Your task to perform on an android device: set default search engine in the chrome app Image 0: 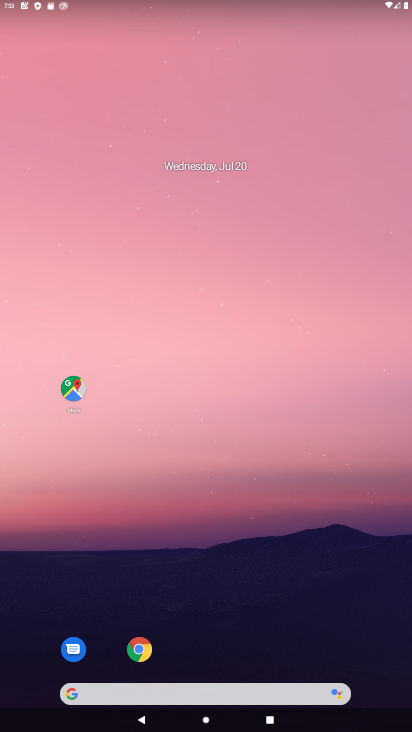
Step 0: click (147, 650)
Your task to perform on an android device: set default search engine in the chrome app Image 1: 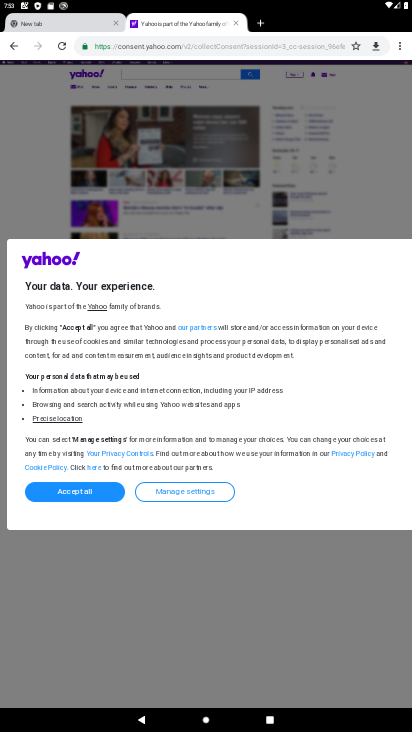
Step 1: click (400, 47)
Your task to perform on an android device: set default search engine in the chrome app Image 2: 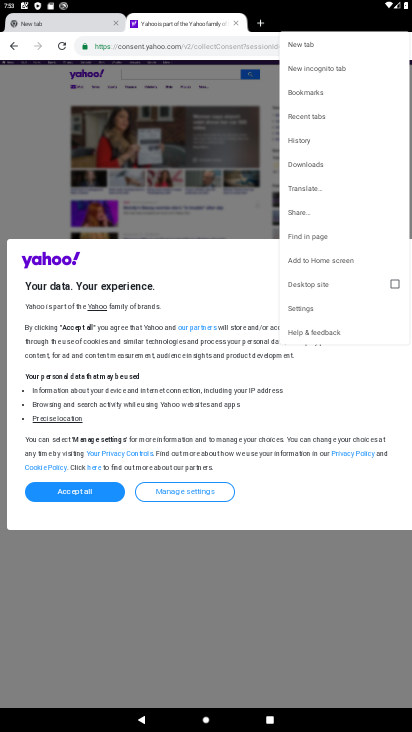
Step 2: click (306, 307)
Your task to perform on an android device: set default search engine in the chrome app Image 3: 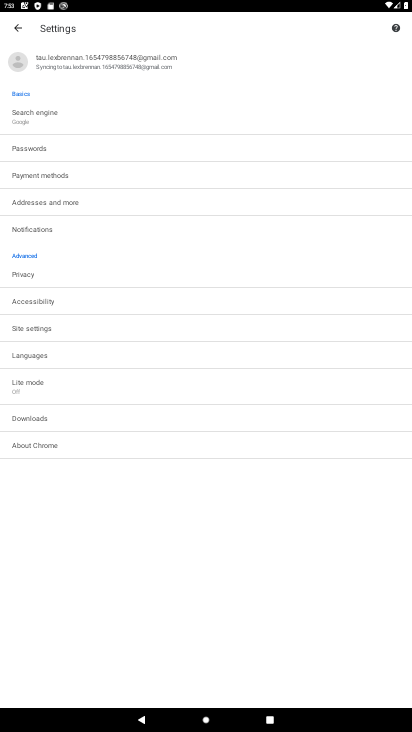
Step 3: click (51, 111)
Your task to perform on an android device: set default search engine in the chrome app Image 4: 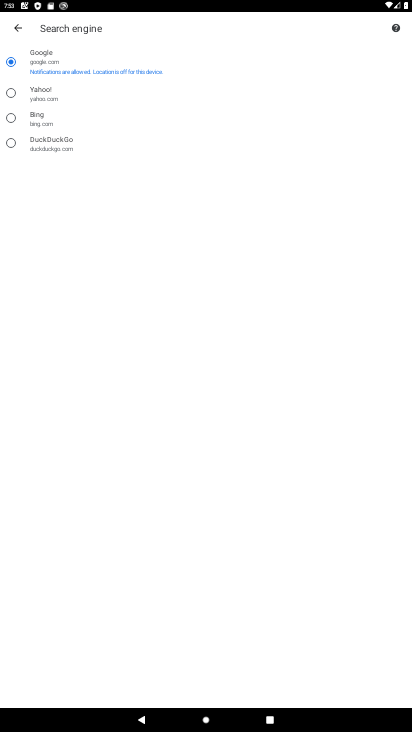
Step 4: click (13, 104)
Your task to perform on an android device: set default search engine in the chrome app Image 5: 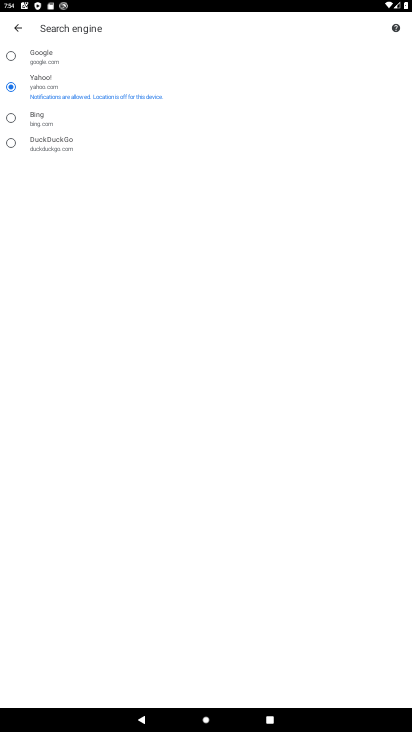
Step 5: task complete